Your task to perform on an android device: Go to CNN.com Image 0: 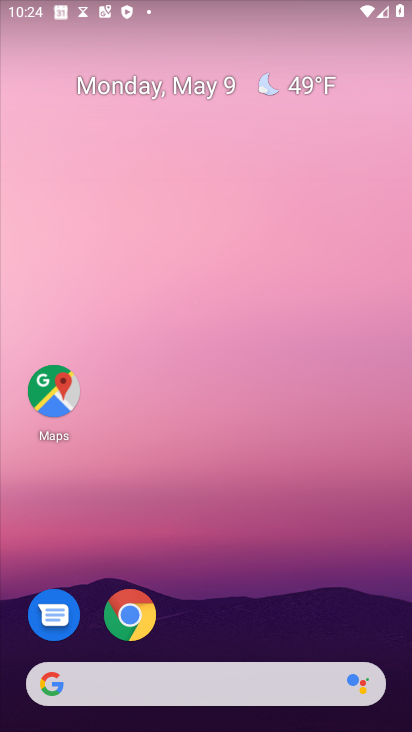
Step 0: click (133, 619)
Your task to perform on an android device: Go to CNN.com Image 1: 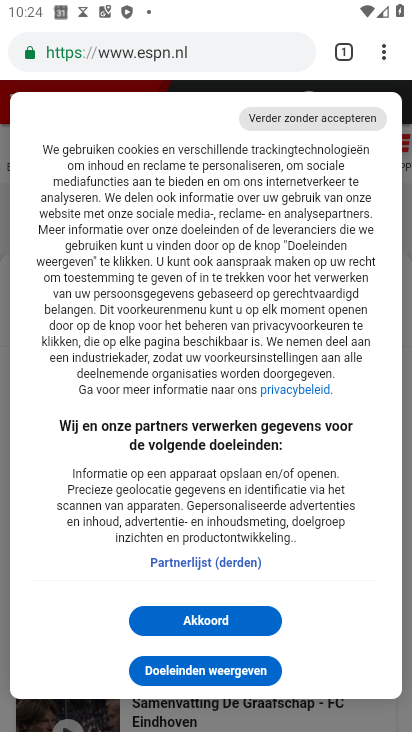
Step 1: click (162, 51)
Your task to perform on an android device: Go to CNN.com Image 2: 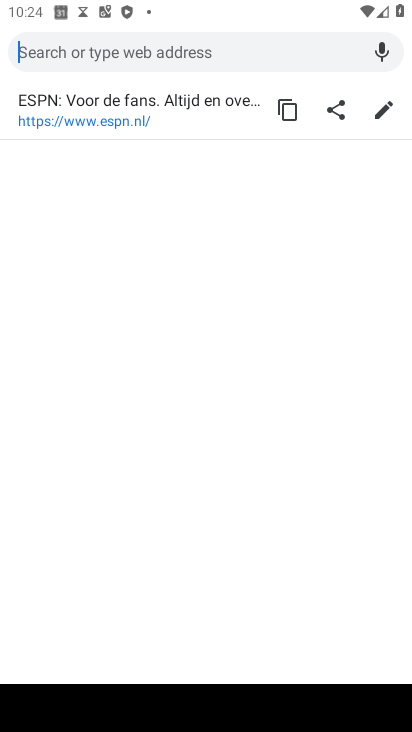
Step 2: type "CNN.com"
Your task to perform on an android device: Go to CNN.com Image 3: 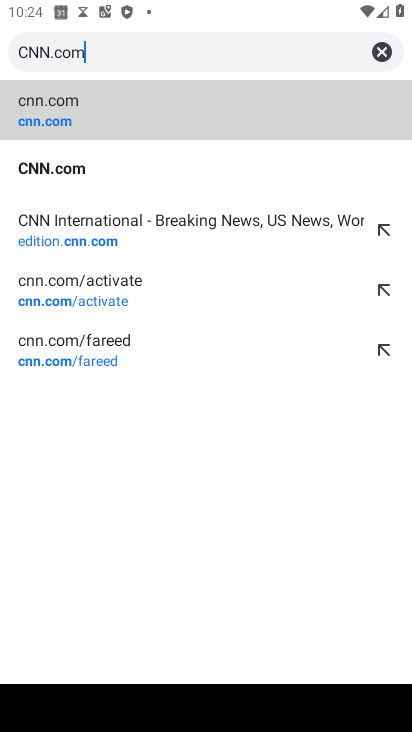
Step 3: click (52, 120)
Your task to perform on an android device: Go to CNN.com Image 4: 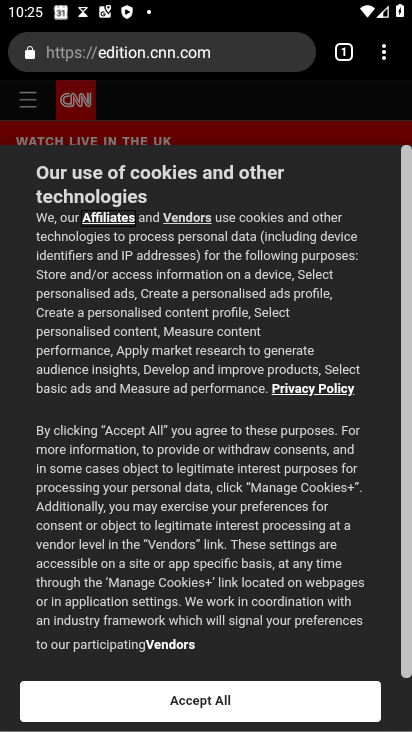
Step 4: task complete